Your task to perform on an android device: Open Google Maps and go to "Timeline" Image 0: 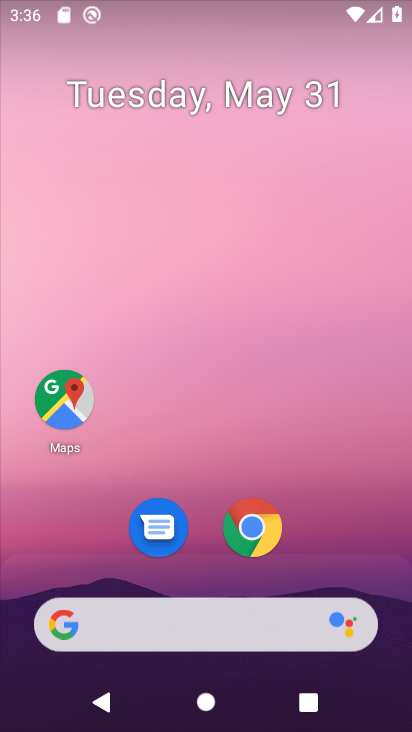
Step 0: drag from (199, 573) to (333, 48)
Your task to perform on an android device: Open Google Maps and go to "Timeline" Image 1: 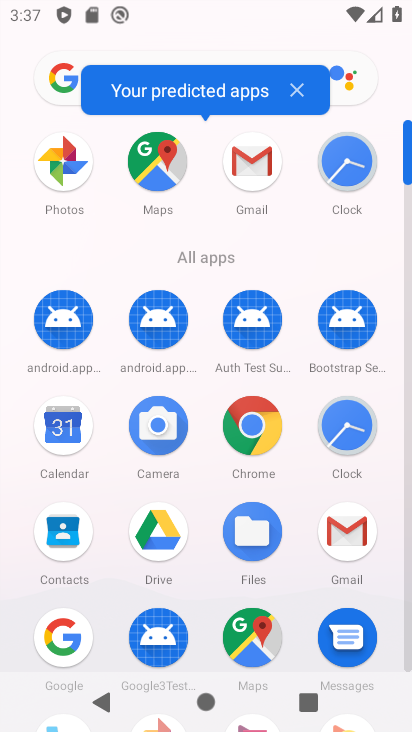
Step 1: click (238, 638)
Your task to perform on an android device: Open Google Maps and go to "Timeline" Image 2: 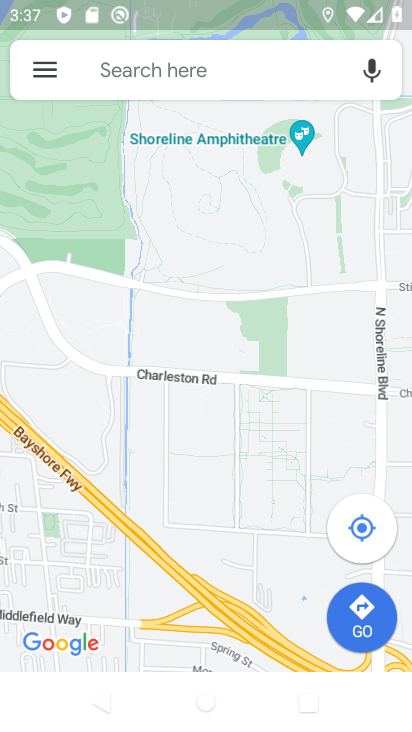
Step 2: click (32, 64)
Your task to perform on an android device: Open Google Maps and go to "Timeline" Image 3: 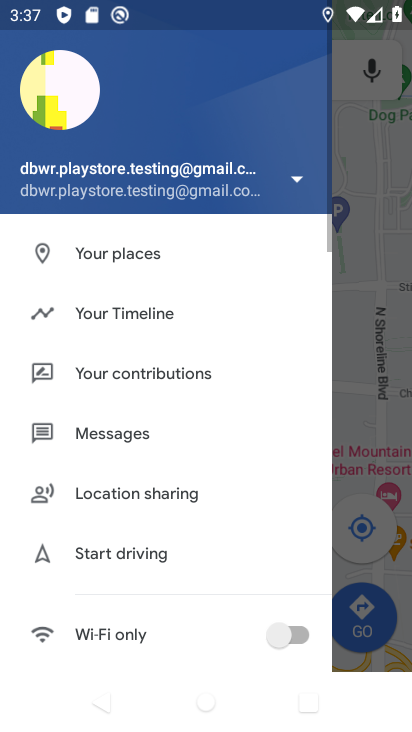
Step 3: click (125, 329)
Your task to perform on an android device: Open Google Maps and go to "Timeline" Image 4: 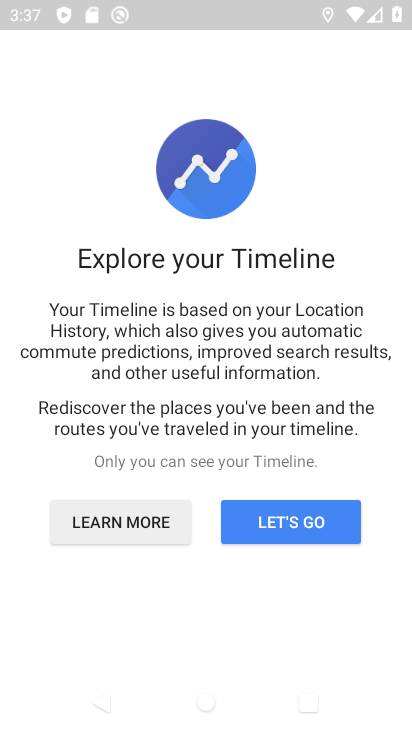
Step 4: click (245, 525)
Your task to perform on an android device: Open Google Maps and go to "Timeline" Image 5: 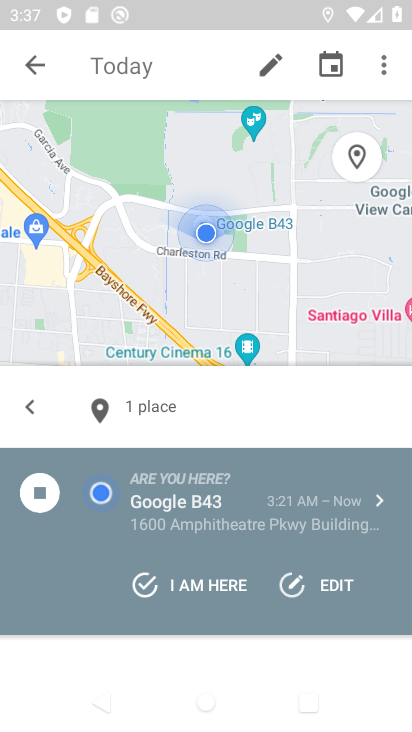
Step 5: task complete